Your task to perform on an android device: Open battery settings Image 0: 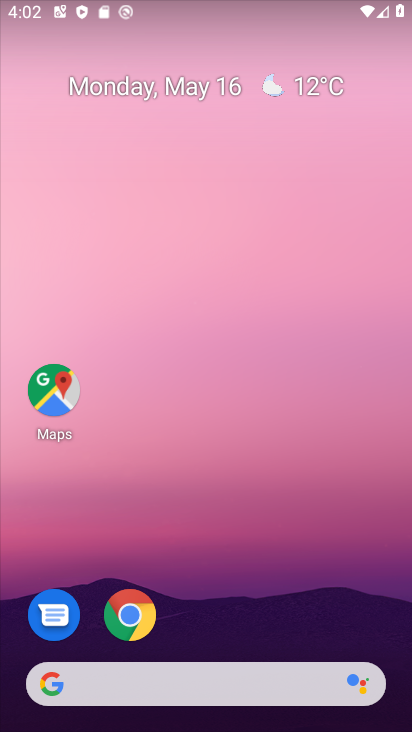
Step 0: drag from (186, 724) to (164, 292)
Your task to perform on an android device: Open battery settings Image 1: 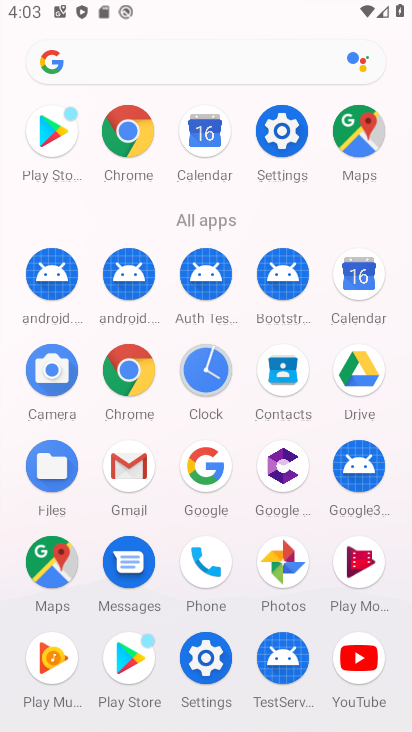
Step 1: click (284, 130)
Your task to perform on an android device: Open battery settings Image 2: 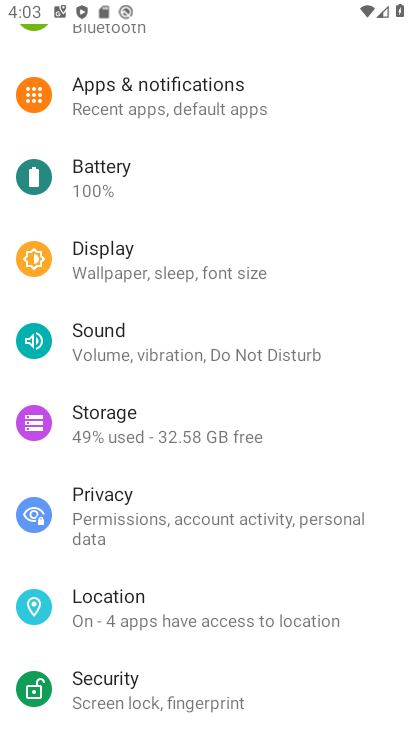
Step 2: click (94, 174)
Your task to perform on an android device: Open battery settings Image 3: 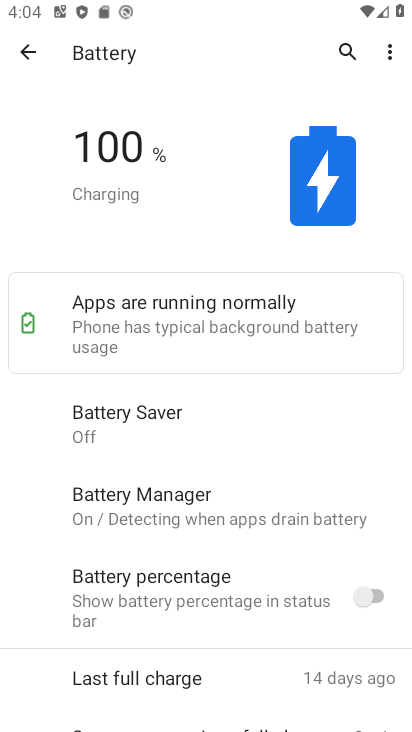
Step 3: task complete